Your task to perform on an android device: What's the weather going to be tomorrow? Image 0: 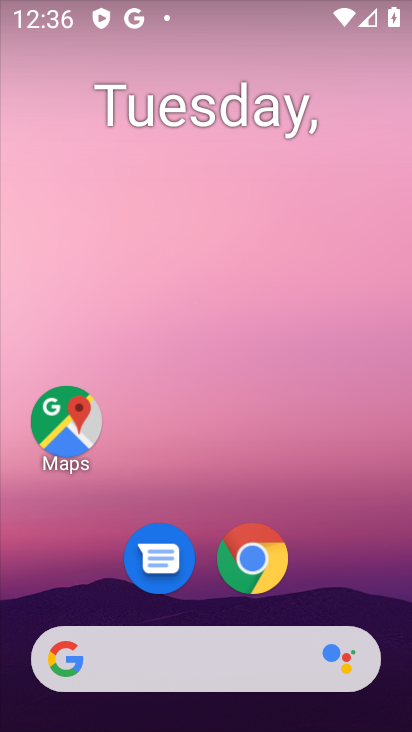
Step 0: click (208, 658)
Your task to perform on an android device: What's the weather going to be tomorrow? Image 1: 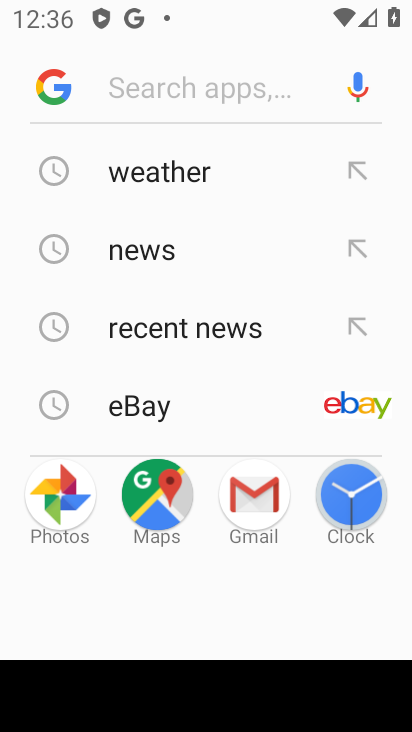
Step 1: click (188, 171)
Your task to perform on an android device: What's the weather going to be tomorrow? Image 2: 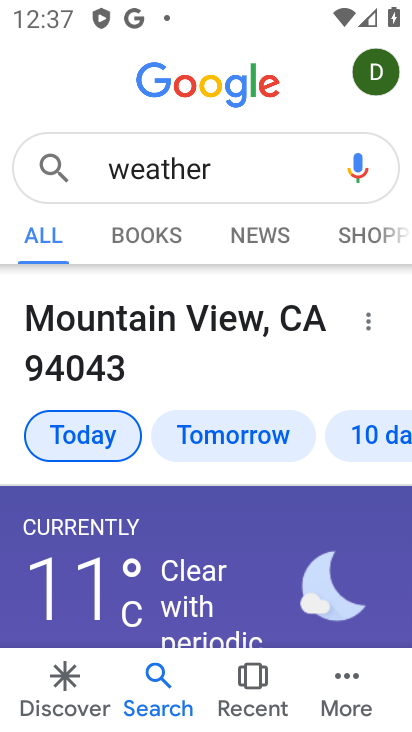
Step 2: click (237, 424)
Your task to perform on an android device: What's the weather going to be tomorrow? Image 3: 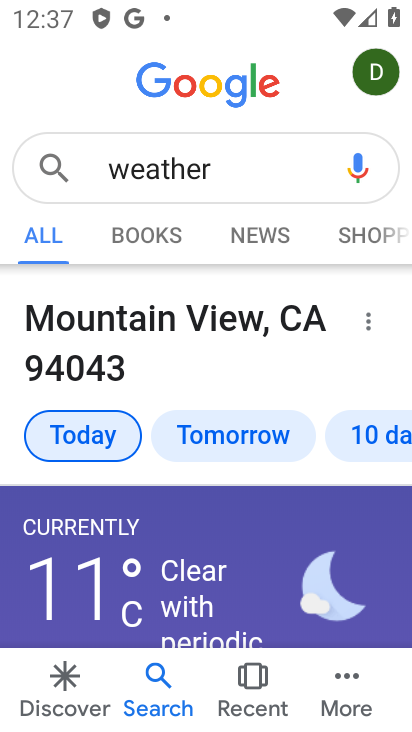
Step 3: click (245, 431)
Your task to perform on an android device: What's the weather going to be tomorrow? Image 4: 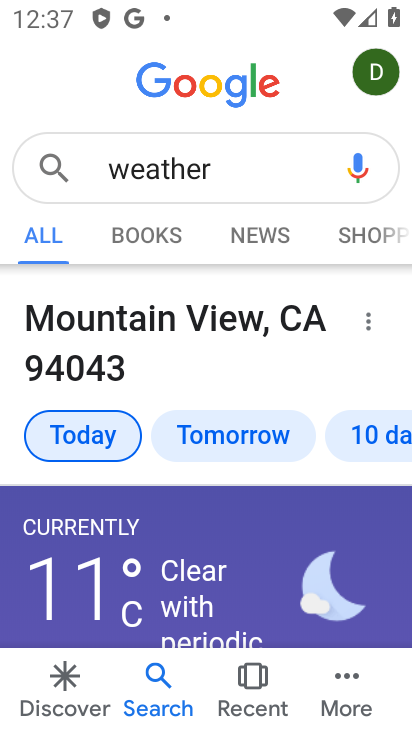
Step 4: click (245, 431)
Your task to perform on an android device: What's the weather going to be tomorrow? Image 5: 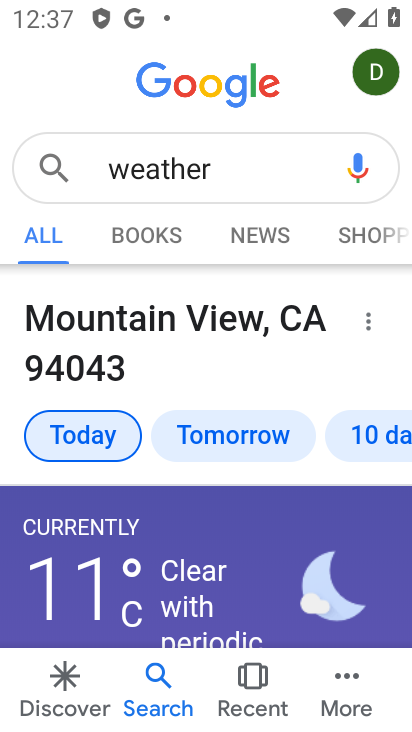
Step 5: click (245, 431)
Your task to perform on an android device: What's the weather going to be tomorrow? Image 6: 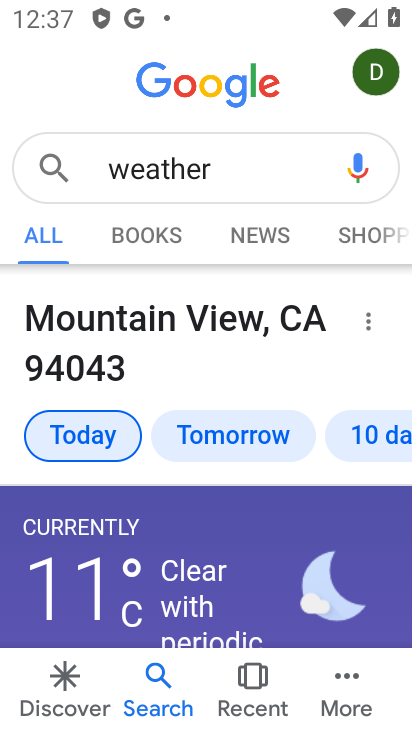
Step 6: click (261, 437)
Your task to perform on an android device: What's the weather going to be tomorrow? Image 7: 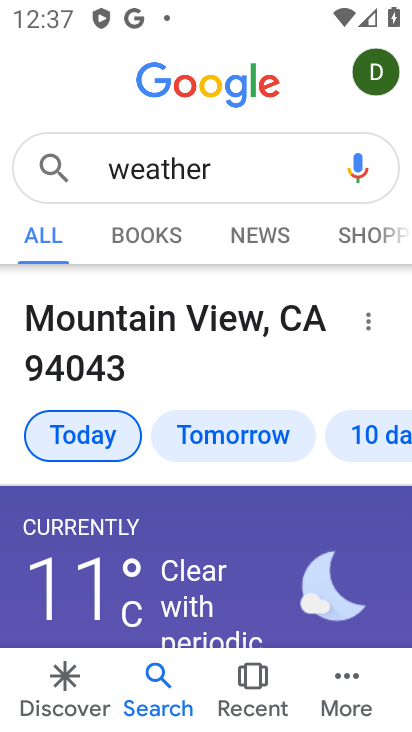
Step 7: task complete